Your task to perform on an android device: add a contact Image 0: 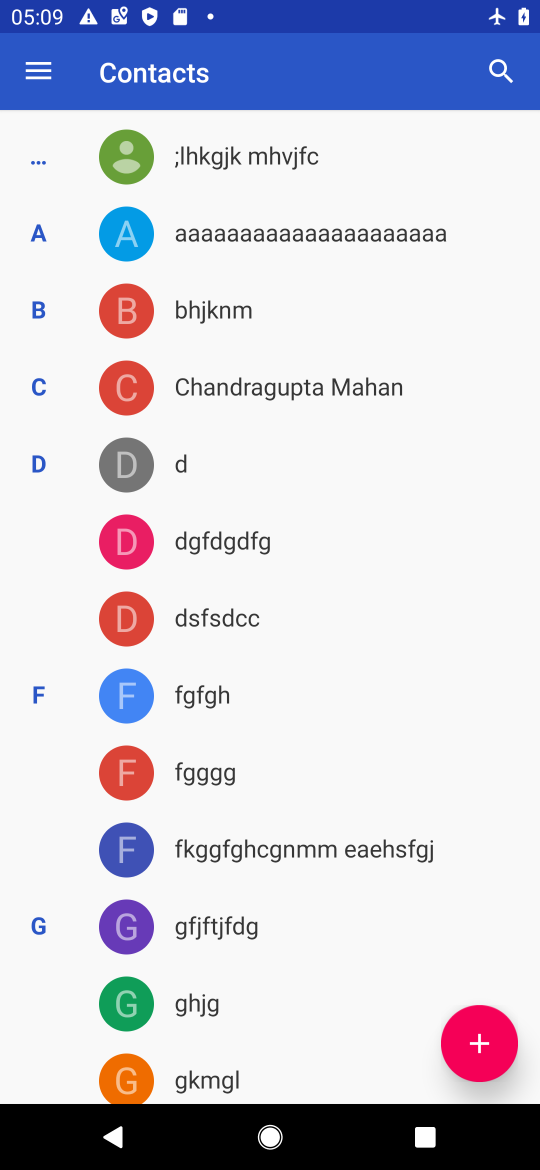
Step 0: click (478, 1035)
Your task to perform on an android device: add a contact Image 1: 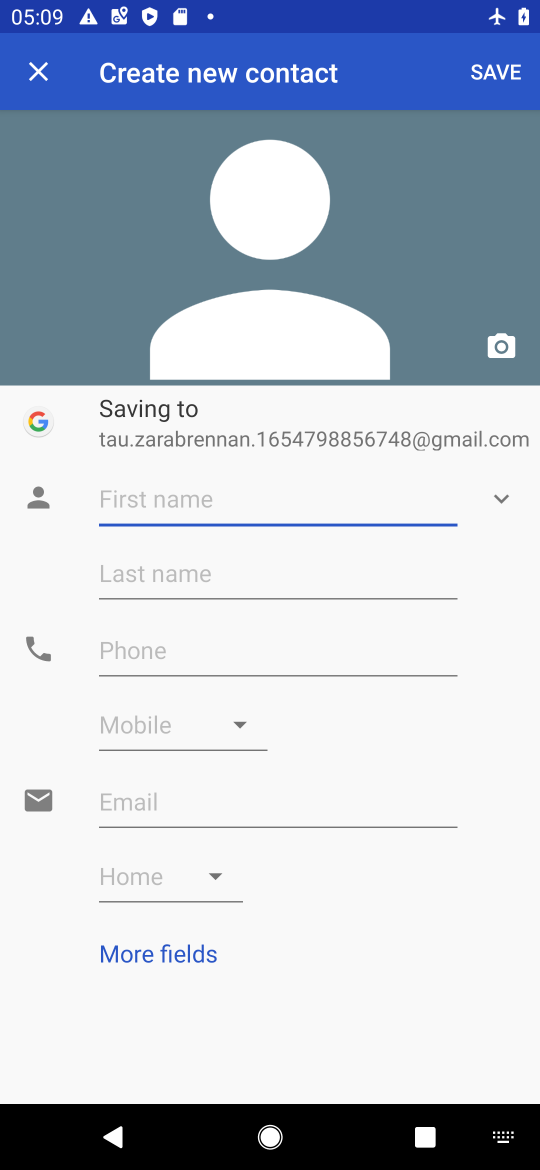
Step 1: click (163, 502)
Your task to perform on an android device: add a contact Image 2: 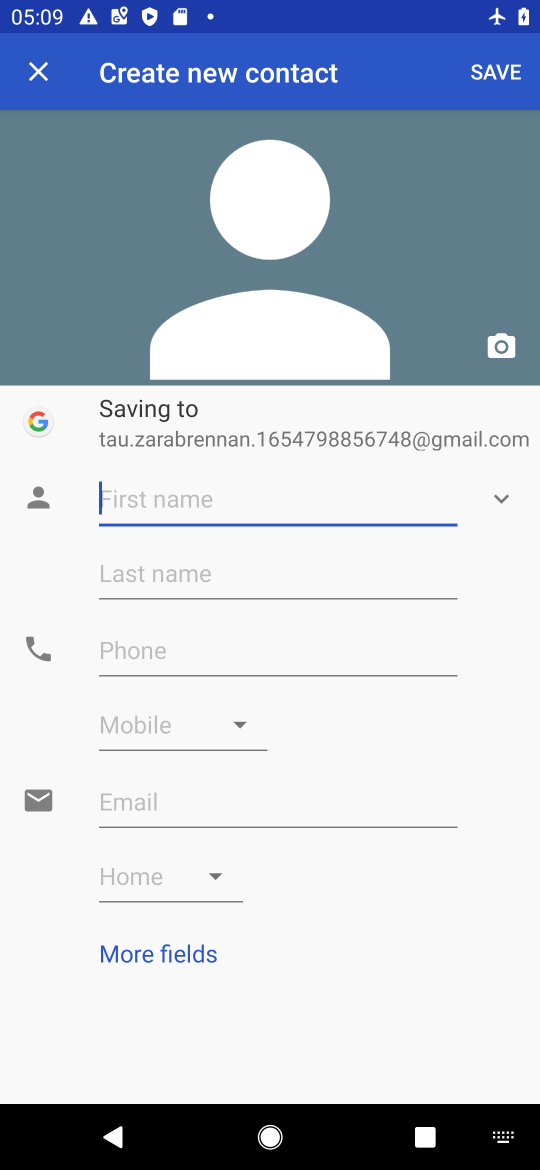
Step 2: type "xbfxb"
Your task to perform on an android device: add a contact Image 3: 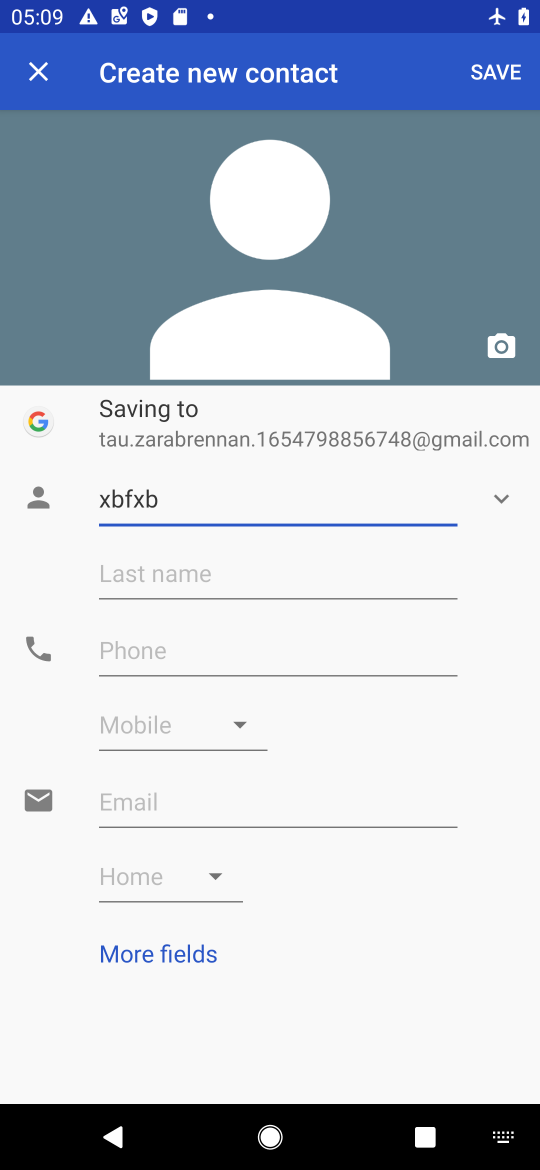
Step 3: click (198, 658)
Your task to perform on an android device: add a contact Image 4: 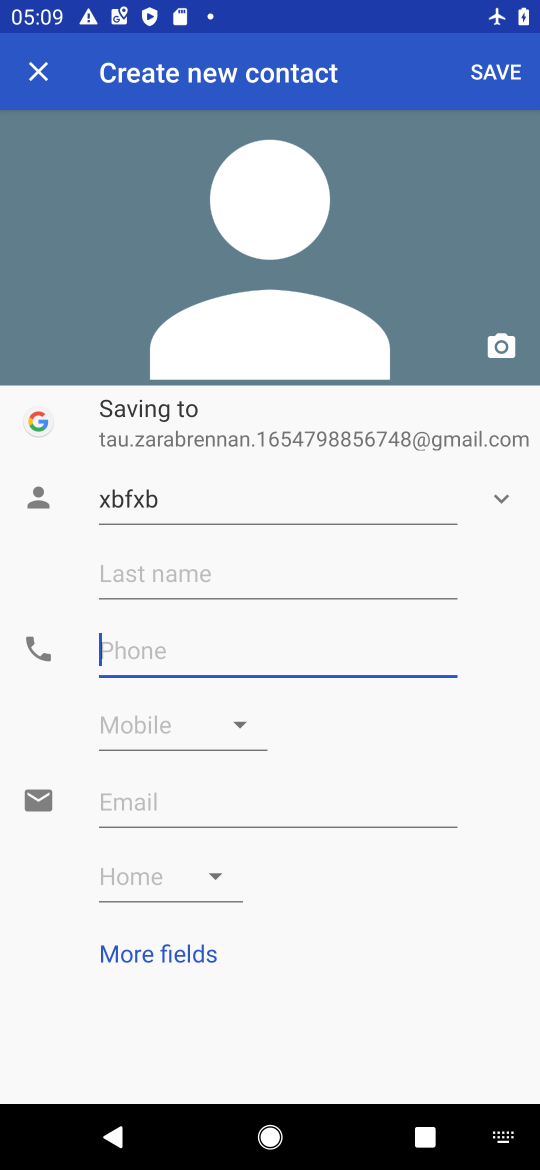
Step 4: type "8675454564"
Your task to perform on an android device: add a contact Image 5: 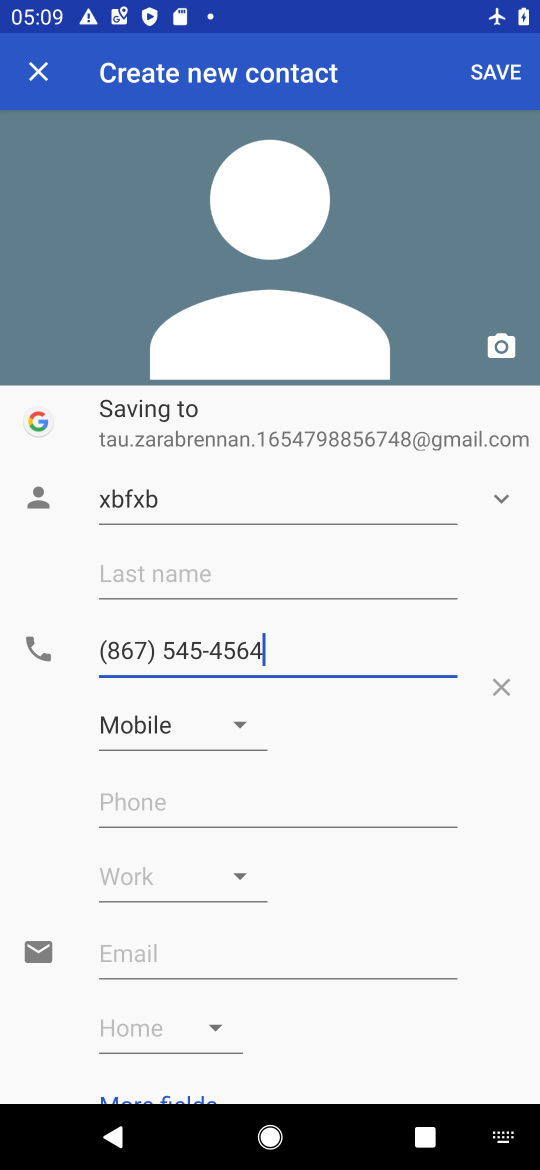
Step 5: click (482, 86)
Your task to perform on an android device: add a contact Image 6: 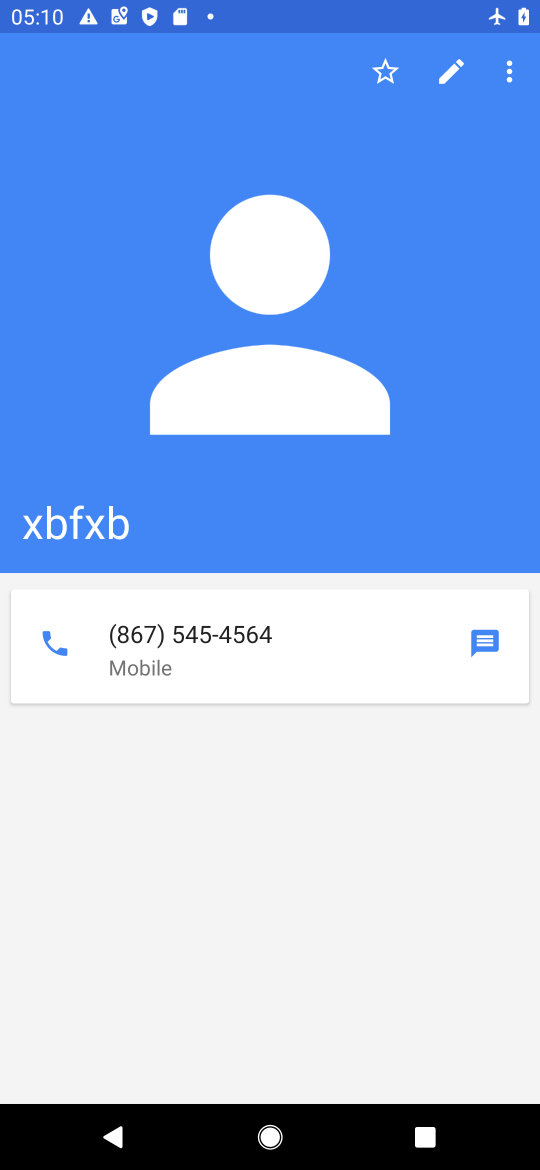
Step 6: task complete